Your task to perform on an android device: open a new tab in the chrome app Image 0: 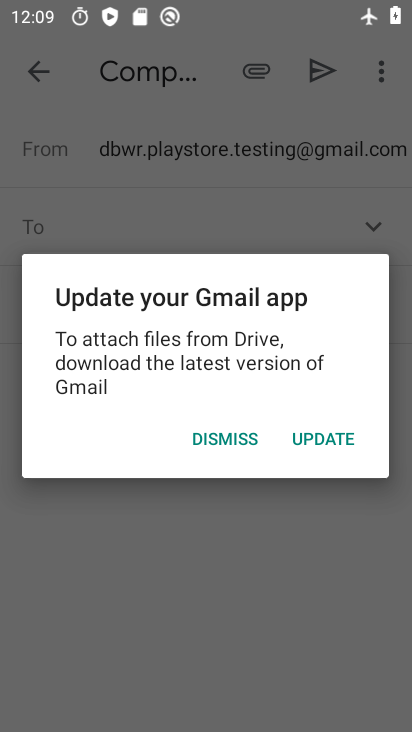
Step 0: press home button
Your task to perform on an android device: open a new tab in the chrome app Image 1: 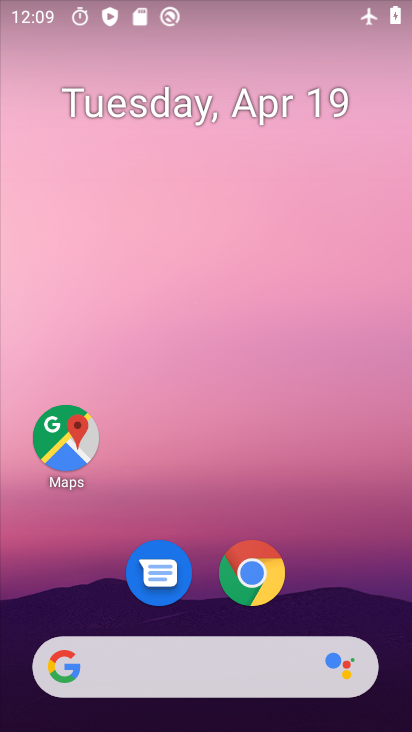
Step 1: click (245, 588)
Your task to perform on an android device: open a new tab in the chrome app Image 2: 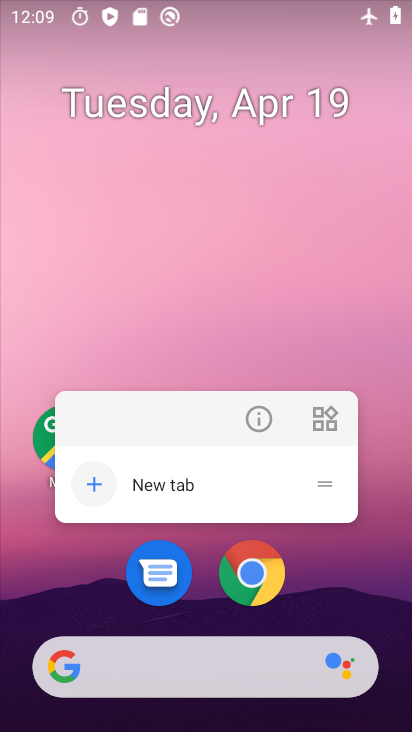
Step 2: click (243, 597)
Your task to perform on an android device: open a new tab in the chrome app Image 3: 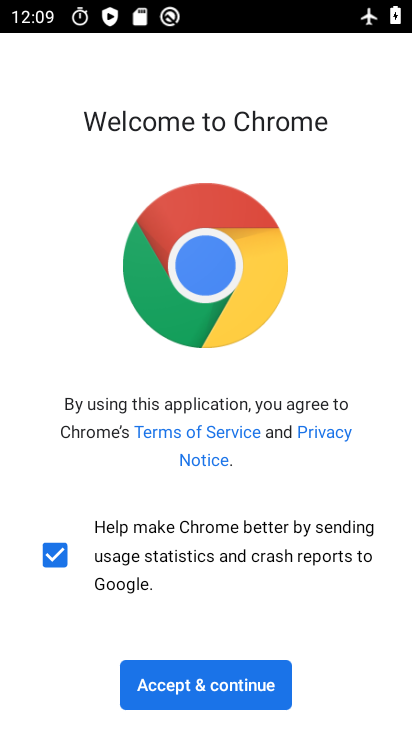
Step 3: click (217, 680)
Your task to perform on an android device: open a new tab in the chrome app Image 4: 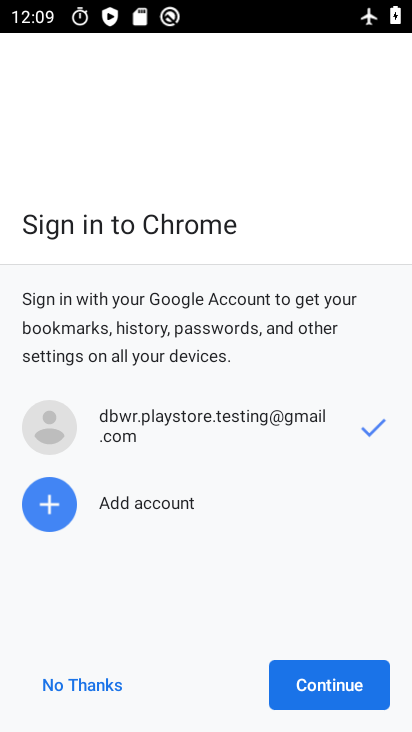
Step 4: click (344, 687)
Your task to perform on an android device: open a new tab in the chrome app Image 5: 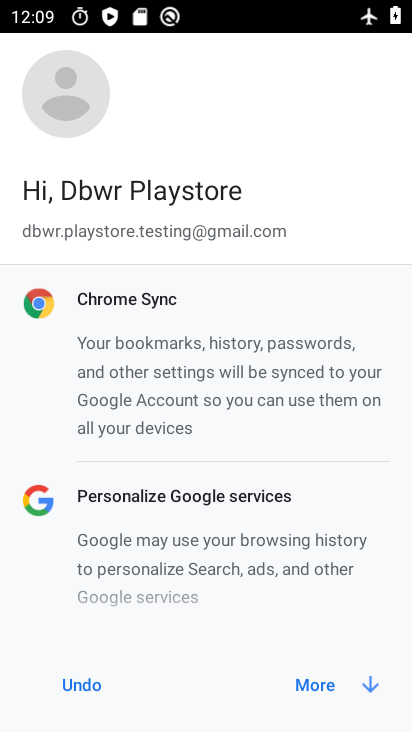
Step 5: click (344, 687)
Your task to perform on an android device: open a new tab in the chrome app Image 6: 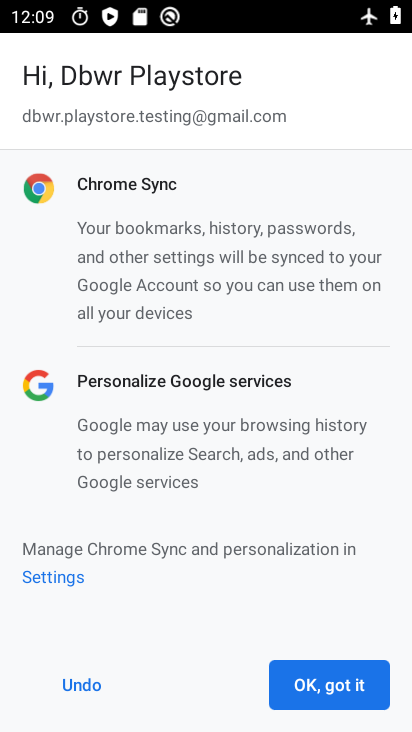
Step 6: click (344, 687)
Your task to perform on an android device: open a new tab in the chrome app Image 7: 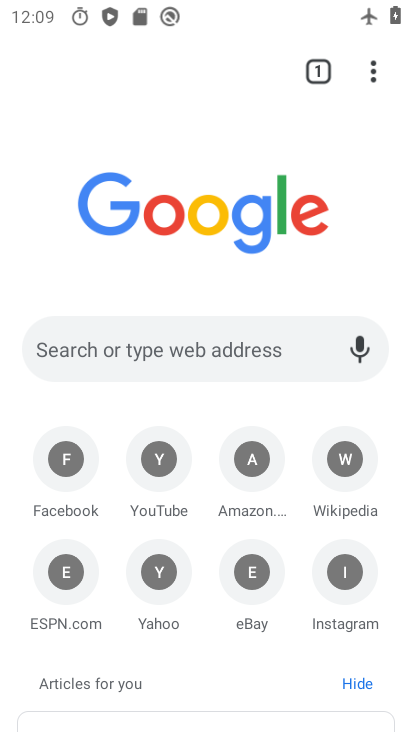
Step 7: click (368, 73)
Your task to perform on an android device: open a new tab in the chrome app Image 8: 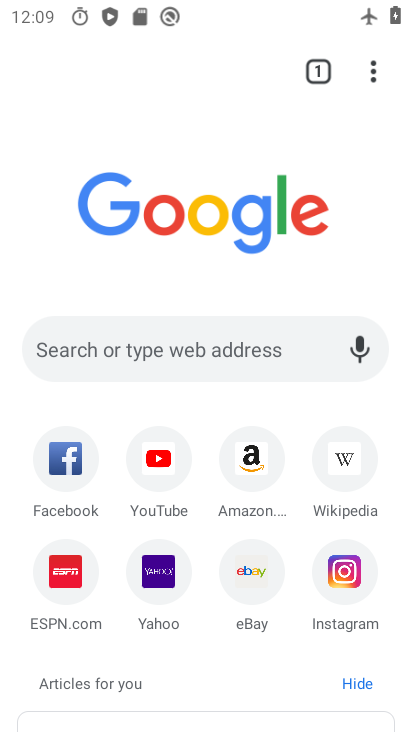
Step 8: task complete